Your task to perform on an android device: find snoozed emails in the gmail app Image 0: 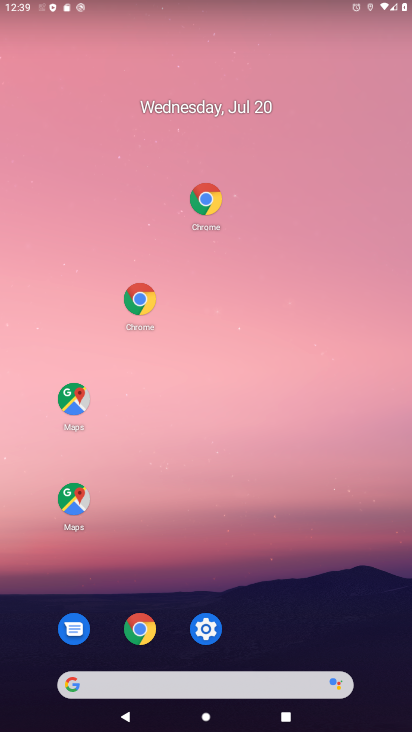
Step 0: drag from (252, 611) to (188, 204)
Your task to perform on an android device: find snoozed emails in the gmail app Image 1: 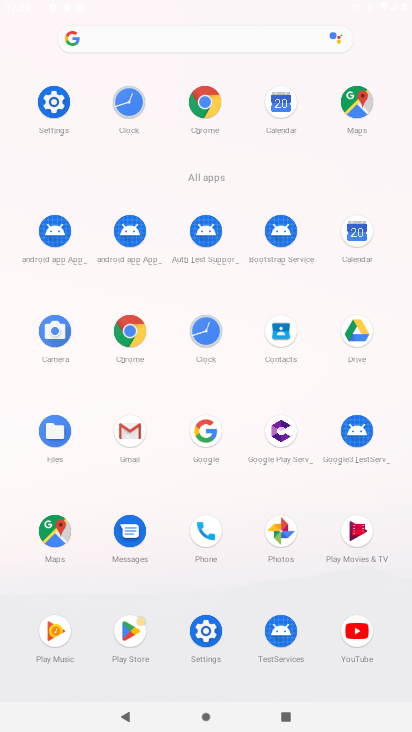
Step 1: click (128, 433)
Your task to perform on an android device: find snoozed emails in the gmail app Image 2: 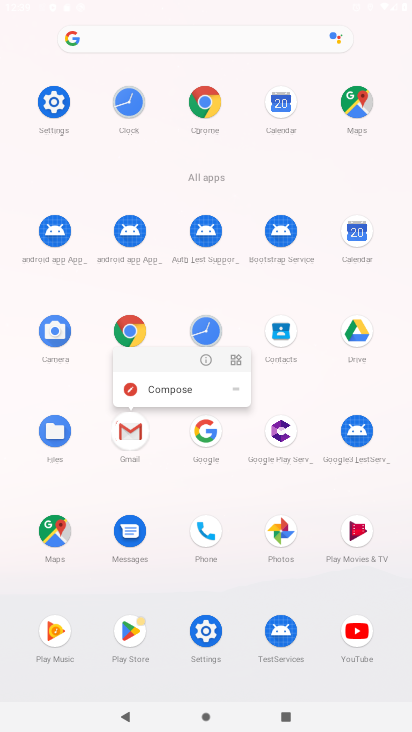
Step 2: click (128, 433)
Your task to perform on an android device: find snoozed emails in the gmail app Image 3: 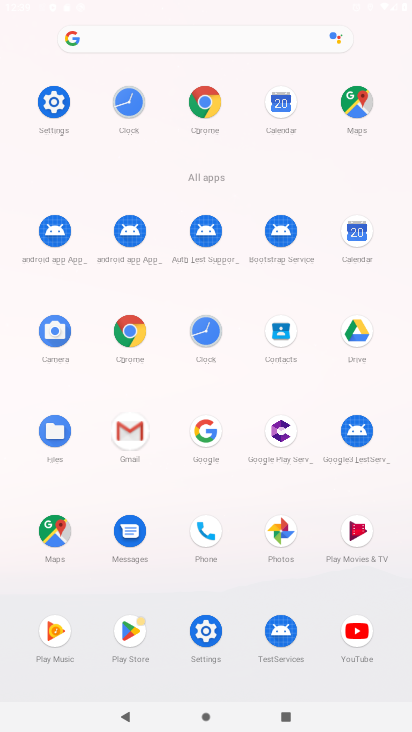
Step 3: click (128, 433)
Your task to perform on an android device: find snoozed emails in the gmail app Image 4: 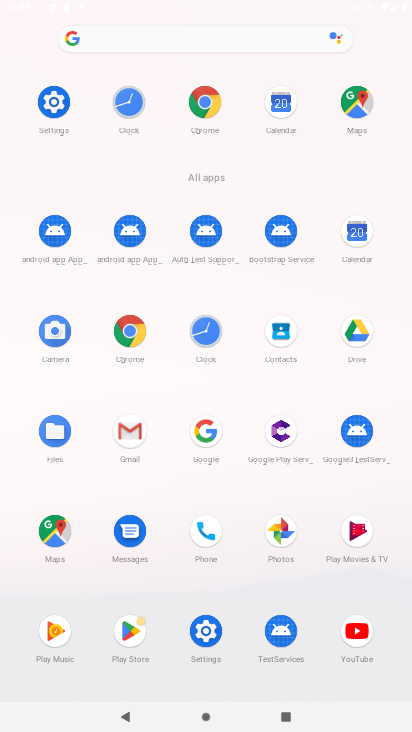
Step 4: click (128, 434)
Your task to perform on an android device: find snoozed emails in the gmail app Image 5: 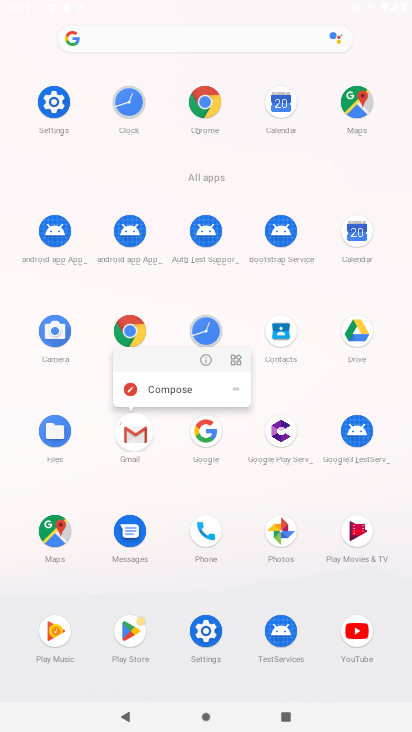
Step 5: click (132, 430)
Your task to perform on an android device: find snoozed emails in the gmail app Image 6: 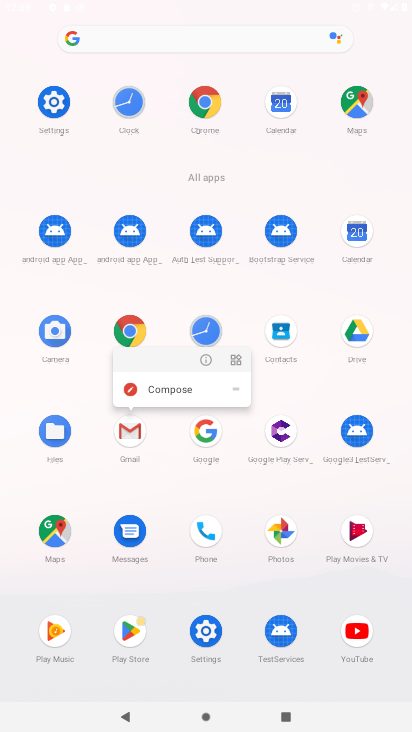
Step 6: click (134, 429)
Your task to perform on an android device: find snoozed emails in the gmail app Image 7: 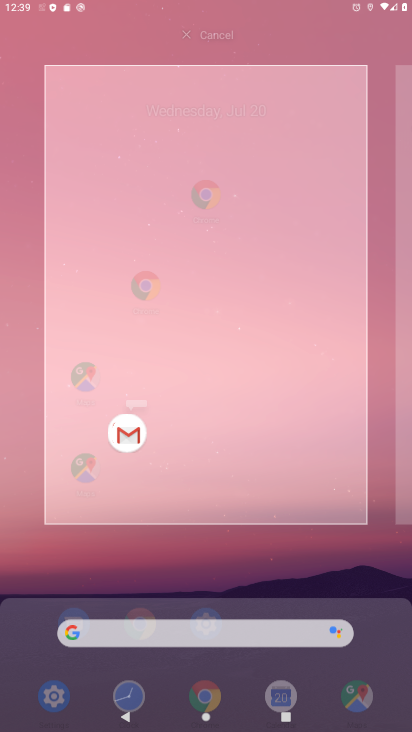
Step 7: click (129, 426)
Your task to perform on an android device: find snoozed emails in the gmail app Image 8: 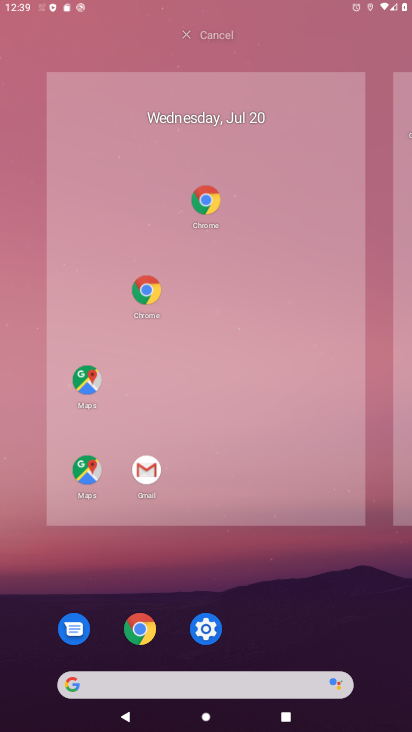
Step 8: click (131, 427)
Your task to perform on an android device: find snoozed emails in the gmail app Image 9: 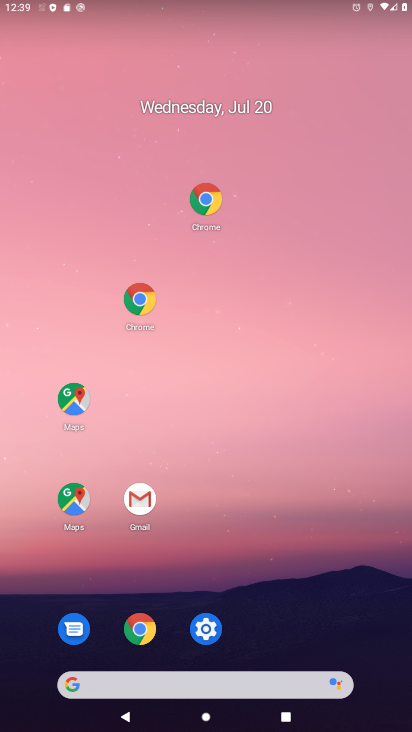
Step 9: drag from (203, 567) to (156, 144)
Your task to perform on an android device: find snoozed emails in the gmail app Image 10: 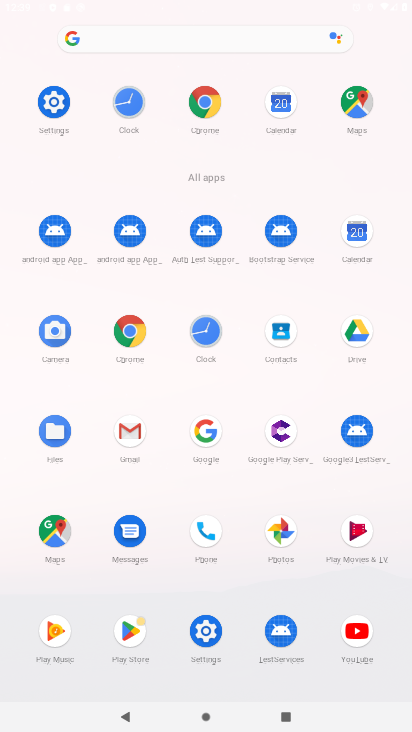
Step 10: click (121, 444)
Your task to perform on an android device: find snoozed emails in the gmail app Image 11: 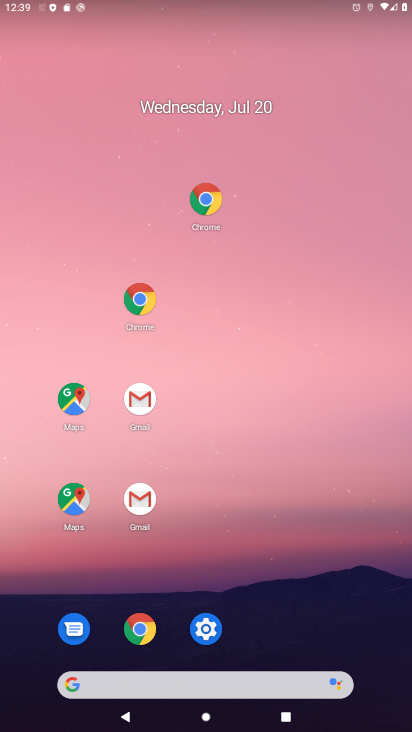
Step 11: drag from (283, 606) to (268, 227)
Your task to perform on an android device: find snoozed emails in the gmail app Image 12: 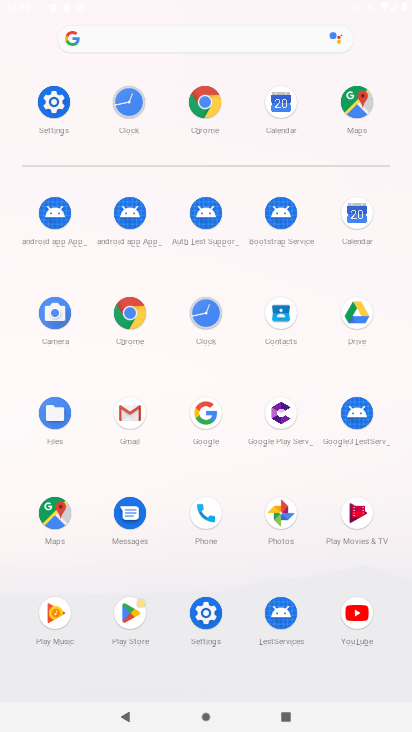
Step 12: click (132, 416)
Your task to perform on an android device: find snoozed emails in the gmail app Image 13: 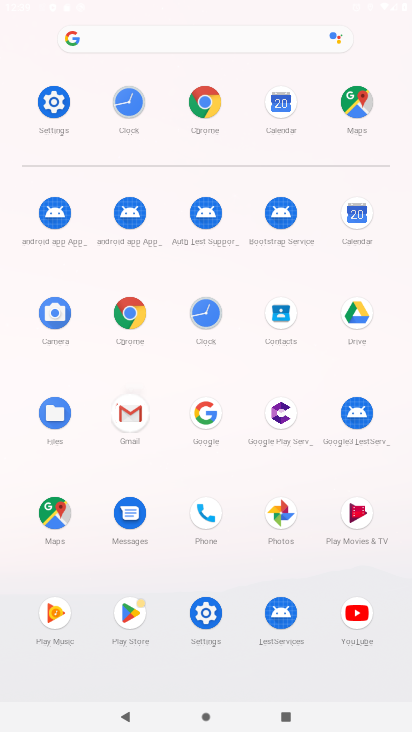
Step 13: click (131, 415)
Your task to perform on an android device: find snoozed emails in the gmail app Image 14: 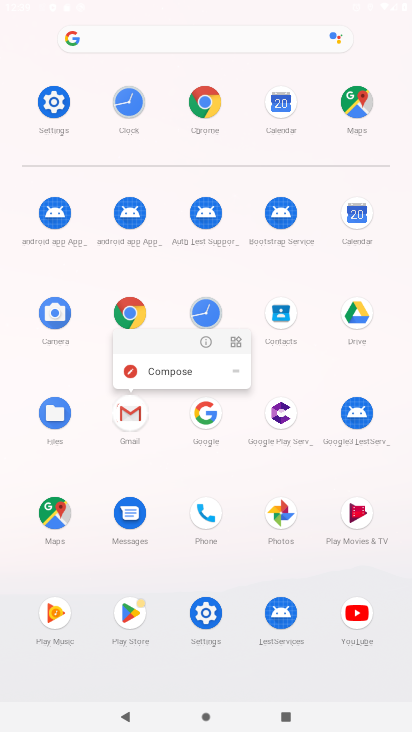
Step 14: click (134, 407)
Your task to perform on an android device: find snoozed emails in the gmail app Image 15: 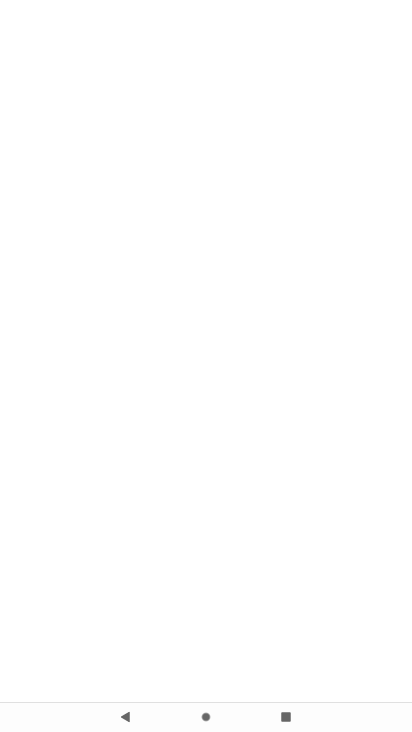
Step 15: click (126, 405)
Your task to perform on an android device: find snoozed emails in the gmail app Image 16: 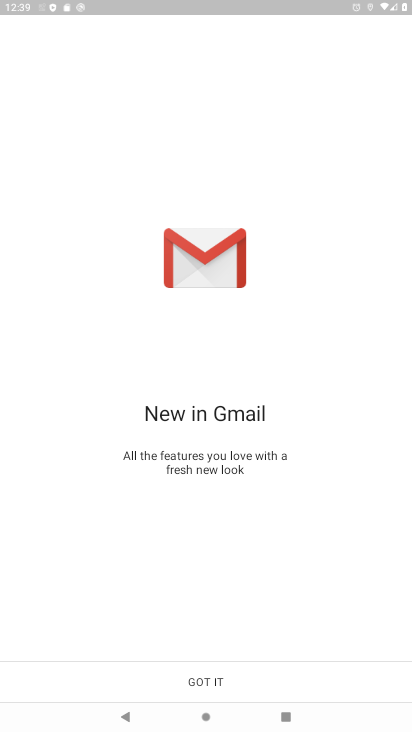
Step 16: click (221, 674)
Your task to perform on an android device: find snoozed emails in the gmail app Image 17: 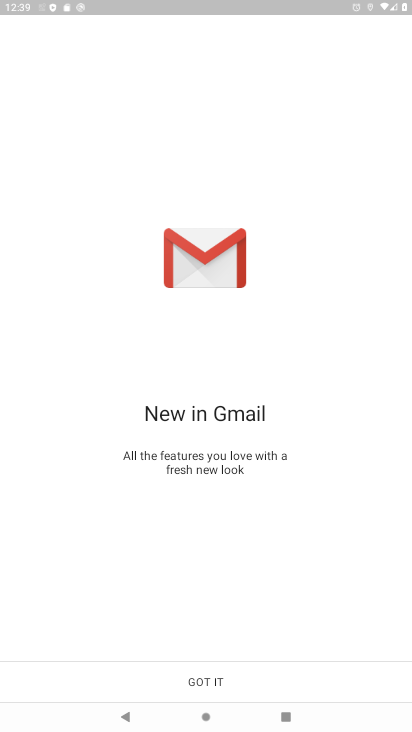
Step 17: click (220, 677)
Your task to perform on an android device: find snoozed emails in the gmail app Image 18: 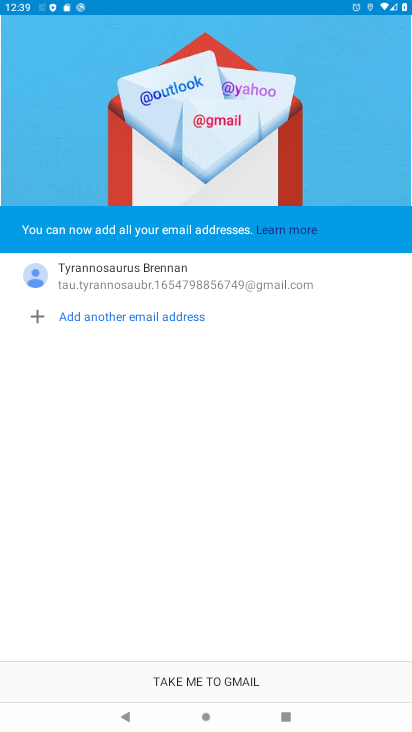
Step 18: click (220, 679)
Your task to perform on an android device: find snoozed emails in the gmail app Image 19: 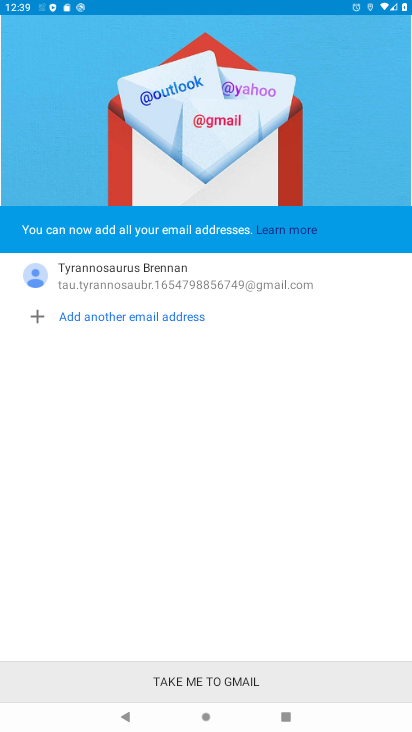
Step 19: click (220, 679)
Your task to perform on an android device: find snoozed emails in the gmail app Image 20: 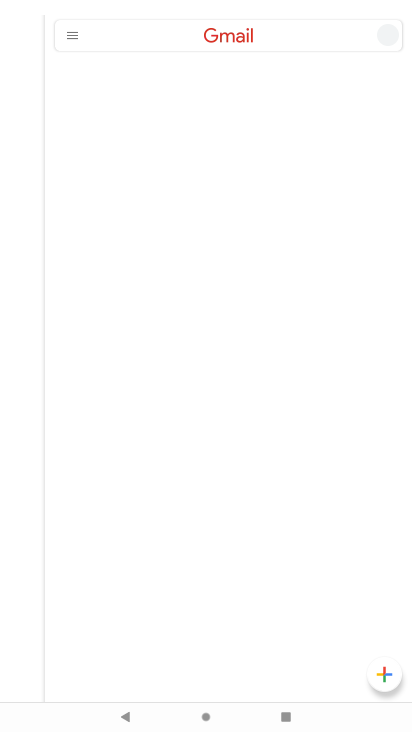
Step 20: click (220, 679)
Your task to perform on an android device: find snoozed emails in the gmail app Image 21: 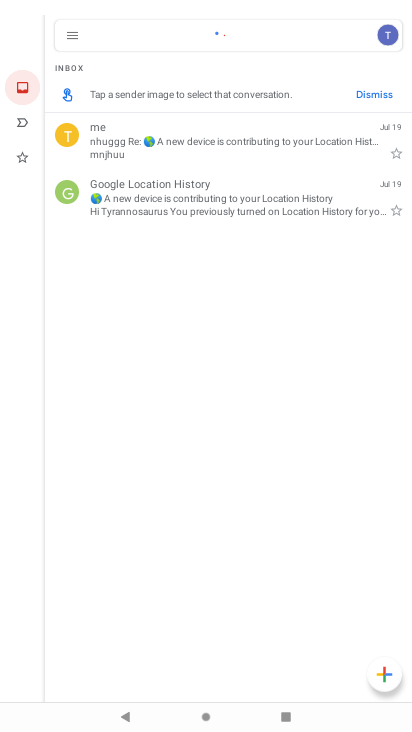
Step 21: drag from (77, 40) to (67, 269)
Your task to perform on an android device: find snoozed emails in the gmail app Image 22: 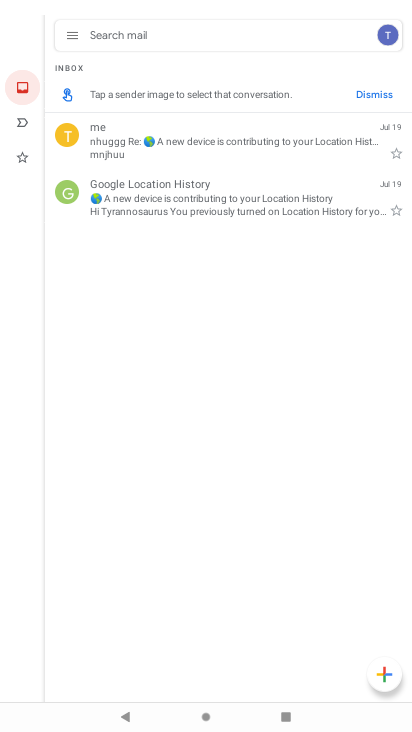
Step 22: click (76, 35)
Your task to perform on an android device: find snoozed emails in the gmail app Image 23: 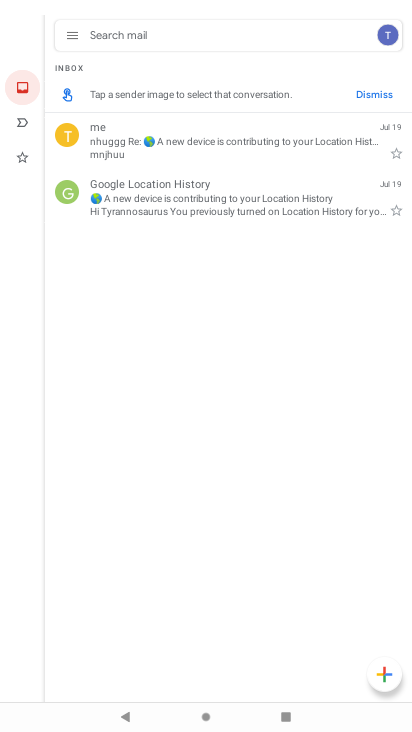
Step 23: click (74, 27)
Your task to perform on an android device: find snoozed emails in the gmail app Image 24: 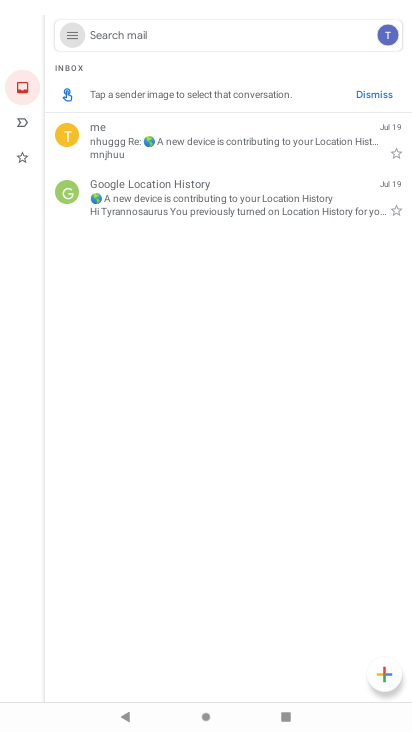
Step 24: click (75, 32)
Your task to perform on an android device: find snoozed emails in the gmail app Image 25: 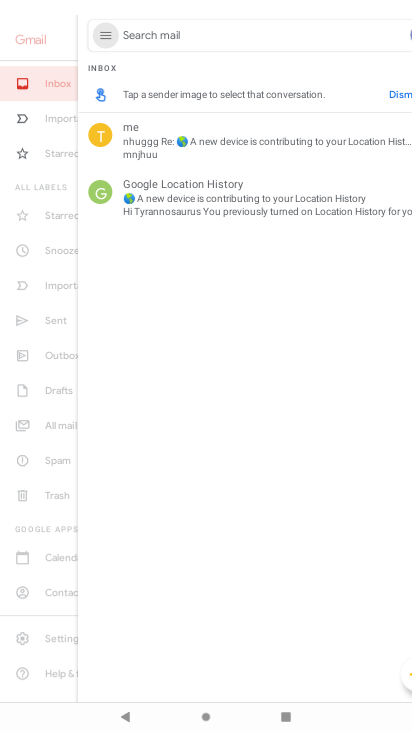
Step 25: click (76, 33)
Your task to perform on an android device: find snoozed emails in the gmail app Image 26: 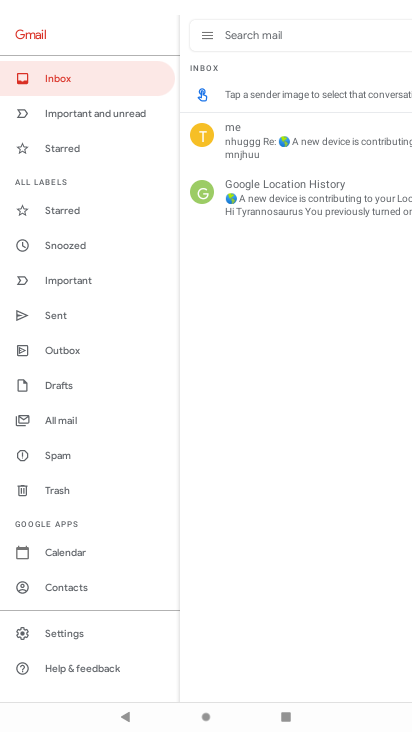
Step 26: click (76, 33)
Your task to perform on an android device: find snoozed emails in the gmail app Image 27: 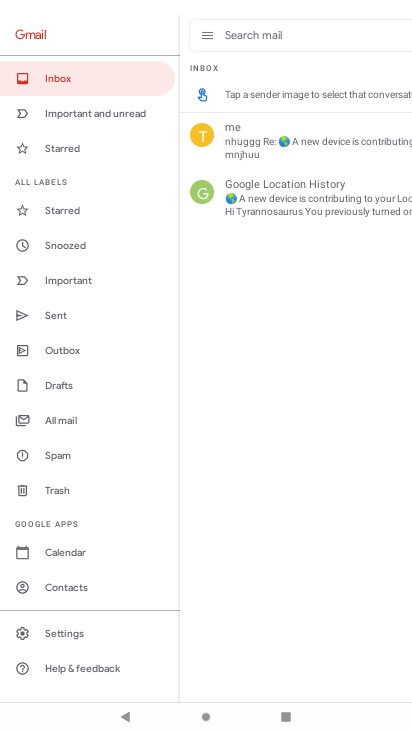
Step 27: click (50, 246)
Your task to perform on an android device: find snoozed emails in the gmail app Image 28: 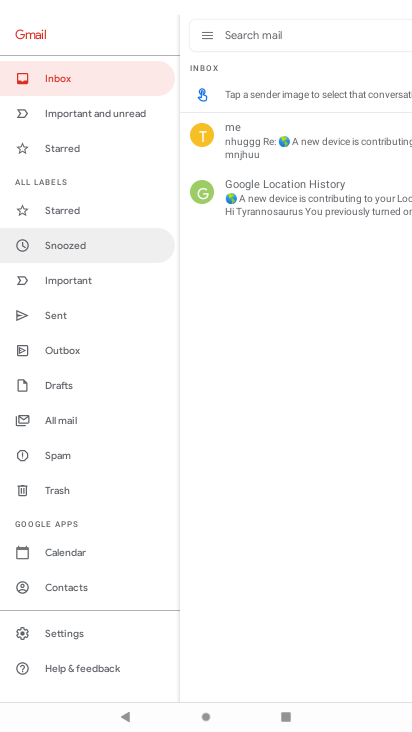
Step 28: click (50, 246)
Your task to perform on an android device: find snoozed emails in the gmail app Image 29: 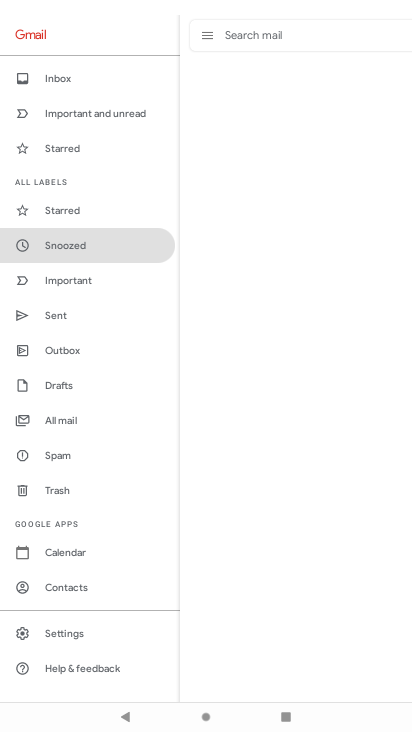
Step 29: click (50, 246)
Your task to perform on an android device: find snoozed emails in the gmail app Image 30: 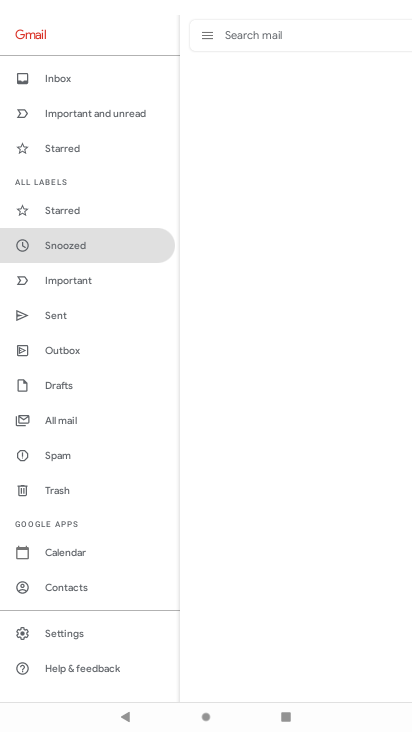
Step 30: click (50, 246)
Your task to perform on an android device: find snoozed emails in the gmail app Image 31: 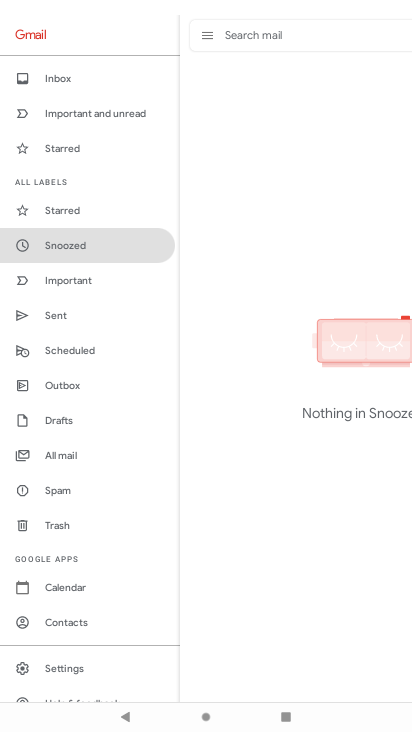
Step 31: task complete